Your task to perform on an android device: toggle wifi Image 0: 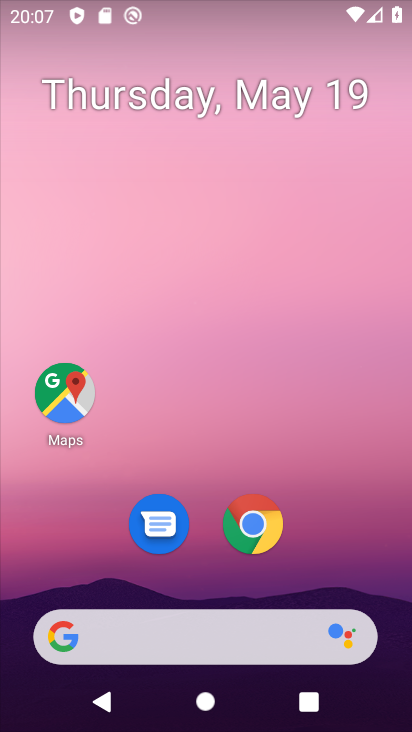
Step 0: drag from (338, 534) to (332, 128)
Your task to perform on an android device: toggle wifi Image 1: 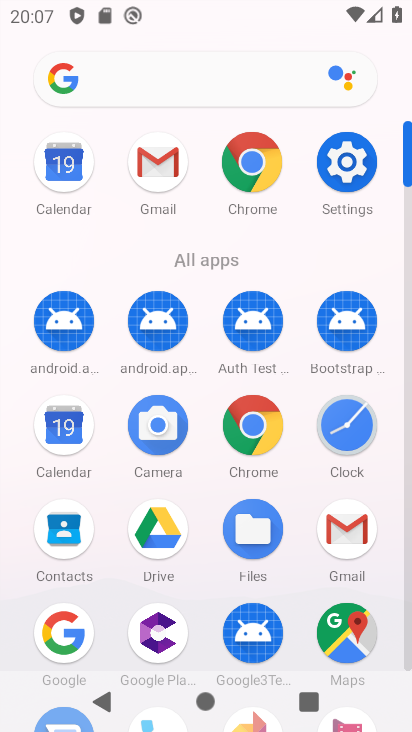
Step 1: click (349, 154)
Your task to perform on an android device: toggle wifi Image 2: 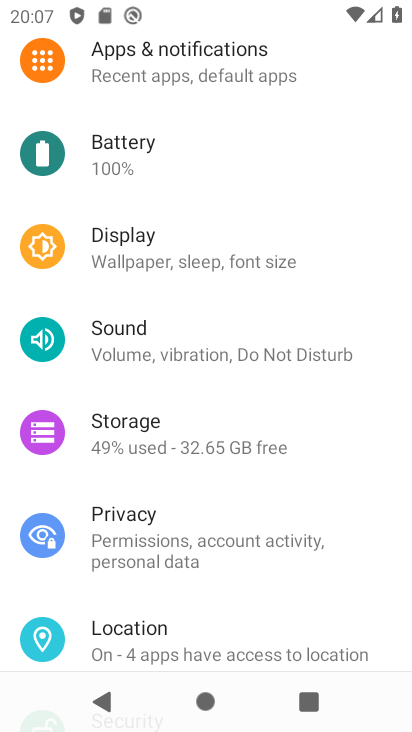
Step 2: drag from (277, 231) to (221, 543)
Your task to perform on an android device: toggle wifi Image 3: 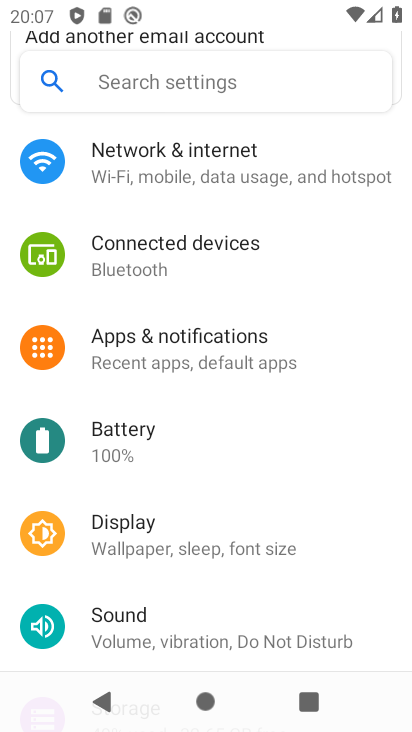
Step 3: click (257, 157)
Your task to perform on an android device: toggle wifi Image 4: 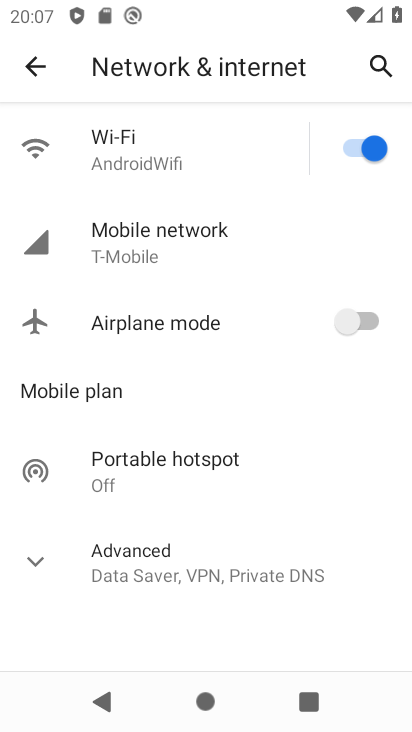
Step 4: click (350, 142)
Your task to perform on an android device: toggle wifi Image 5: 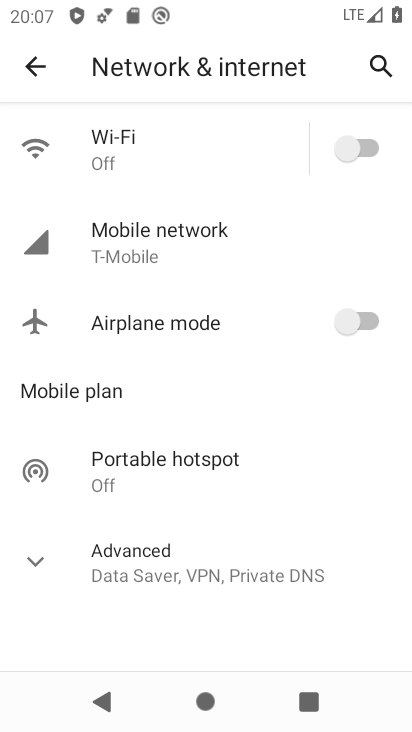
Step 5: task complete